Your task to perform on an android device: turn off location history Image 0: 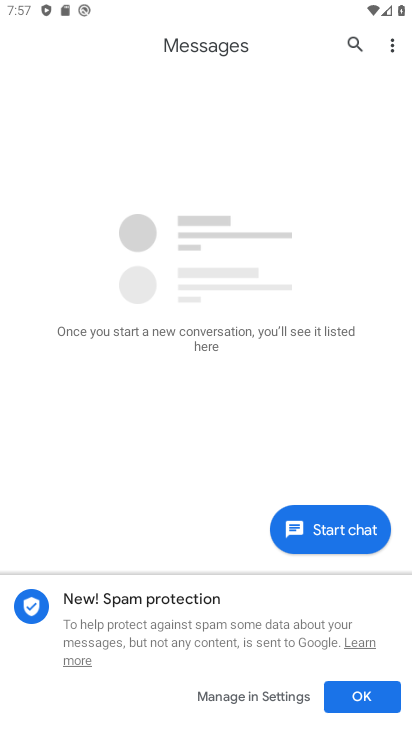
Step 0: press home button
Your task to perform on an android device: turn off location history Image 1: 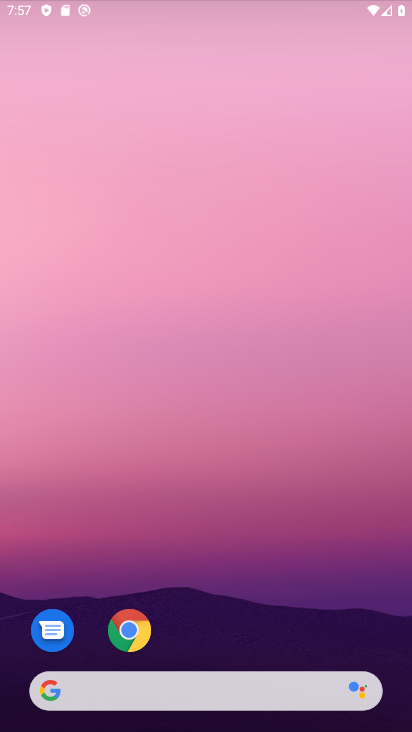
Step 1: drag from (202, 224) to (16, 488)
Your task to perform on an android device: turn off location history Image 2: 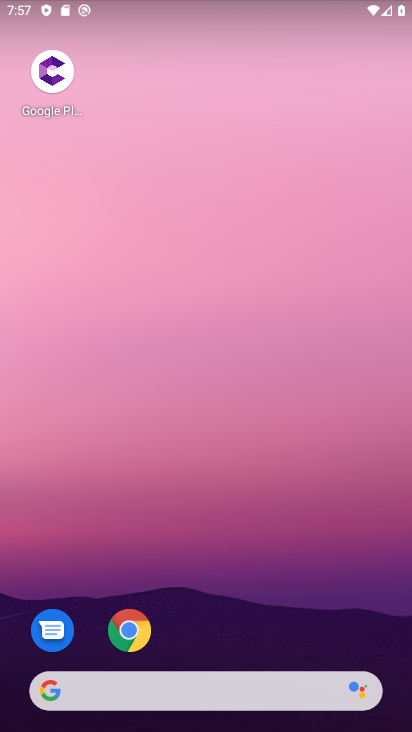
Step 2: drag from (278, 602) to (384, 33)
Your task to perform on an android device: turn off location history Image 3: 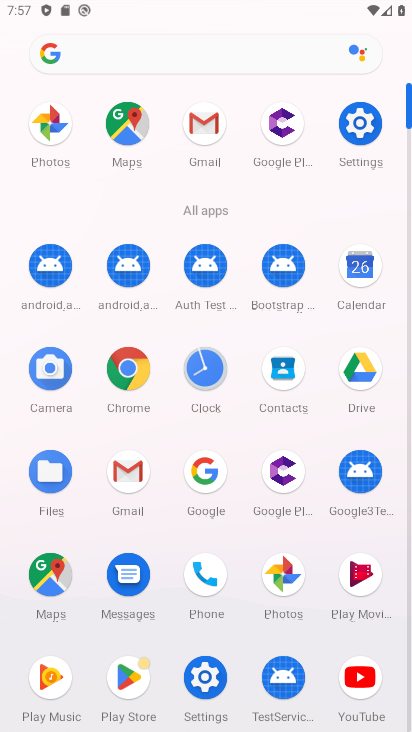
Step 3: click (375, 108)
Your task to perform on an android device: turn off location history Image 4: 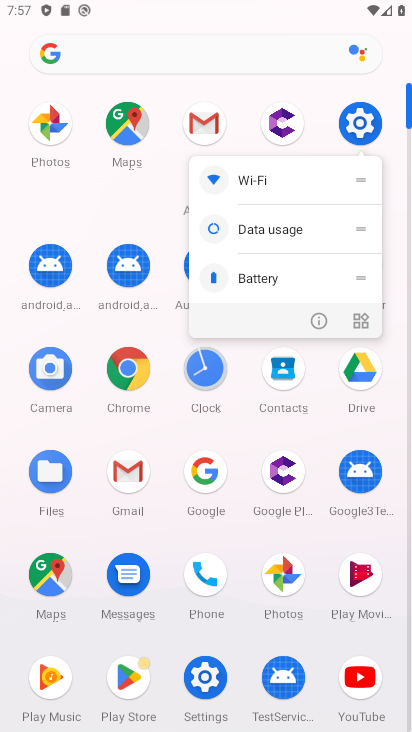
Step 4: click (351, 123)
Your task to perform on an android device: turn off location history Image 5: 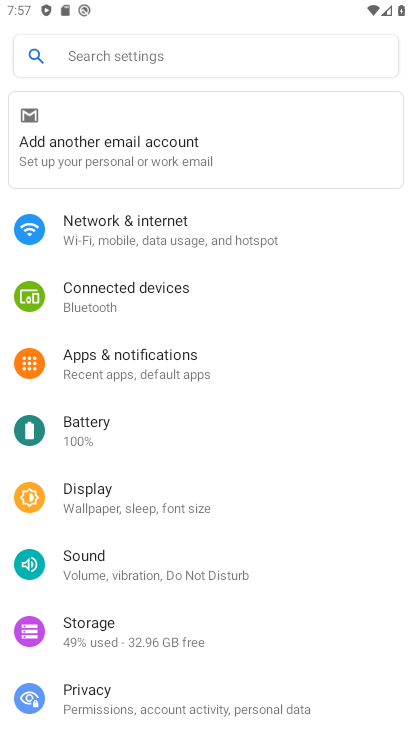
Step 5: drag from (111, 641) to (24, 309)
Your task to perform on an android device: turn off location history Image 6: 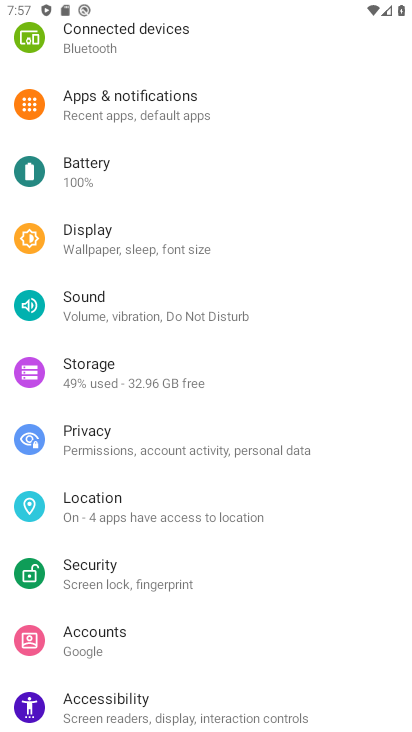
Step 6: click (129, 512)
Your task to perform on an android device: turn off location history Image 7: 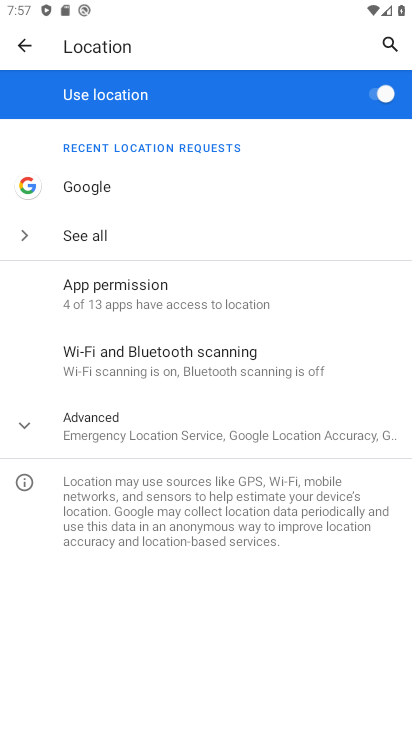
Step 7: click (83, 425)
Your task to perform on an android device: turn off location history Image 8: 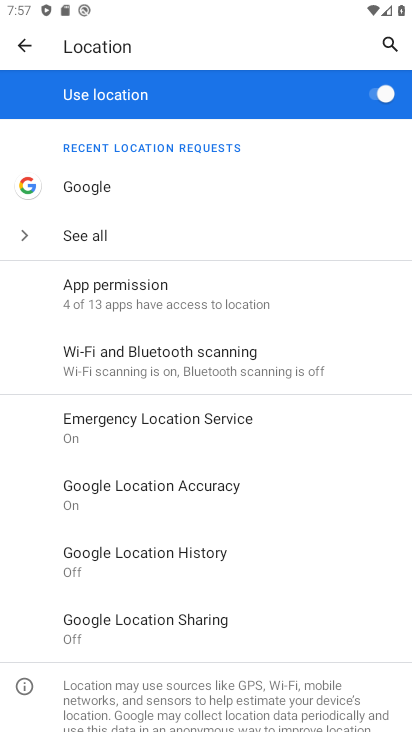
Step 8: click (187, 558)
Your task to perform on an android device: turn off location history Image 9: 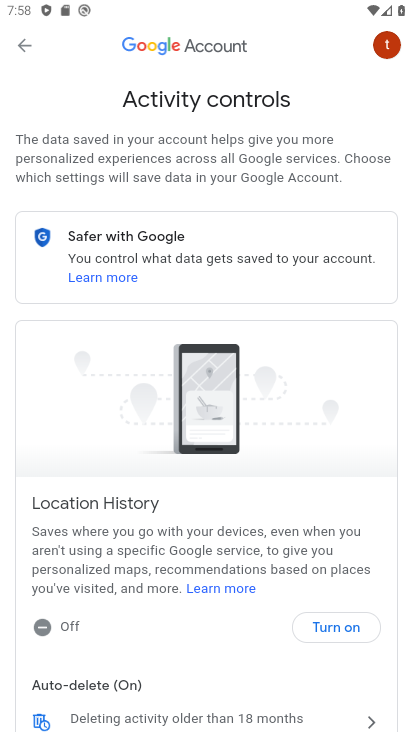
Step 9: task complete